Your task to perform on an android device: change the clock display to analog Image 0: 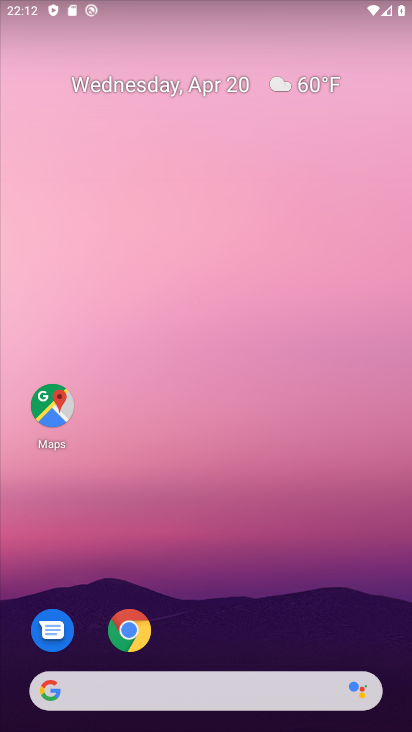
Step 0: drag from (283, 652) to (357, 84)
Your task to perform on an android device: change the clock display to analog Image 1: 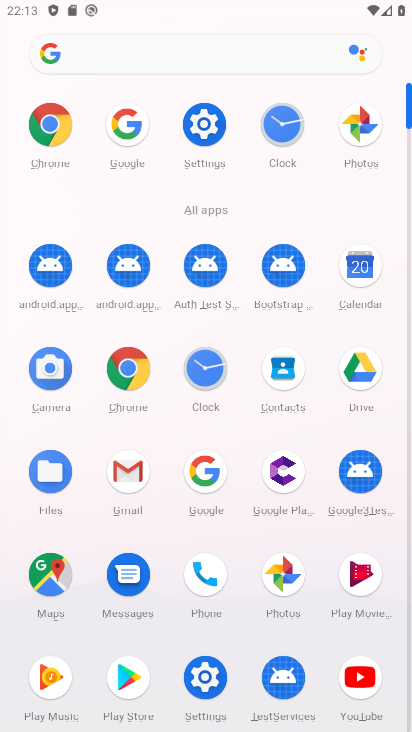
Step 1: click (207, 374)
Your task to perform on an android device: change the clock display to analog Image 2: 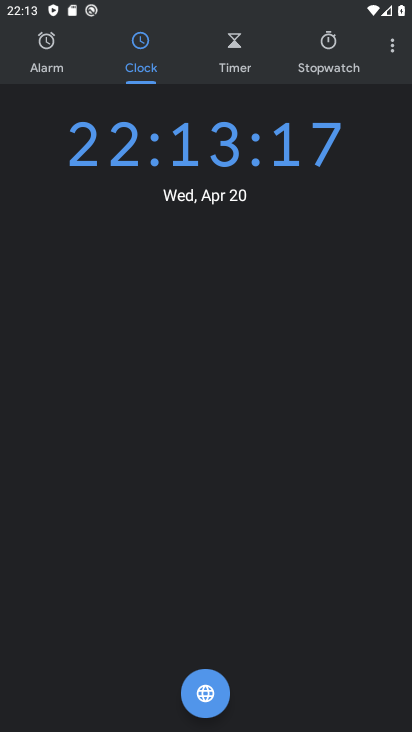
Step 2: click (398, 49)
Your task to perform on an android device: change the clock display to analog Image 3: 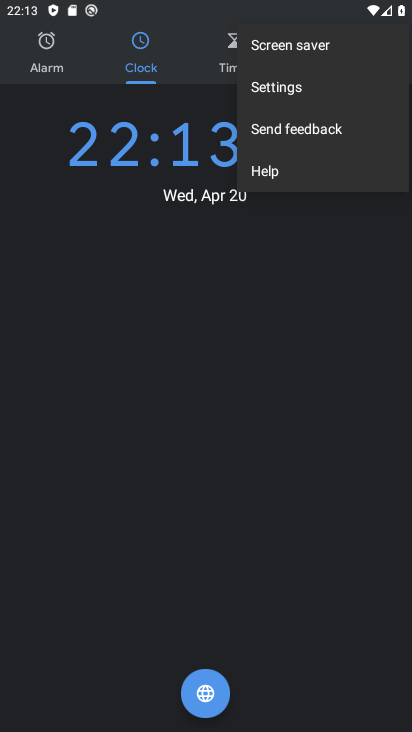
Step 3: click (320, 90)
Your task to perform on an android device: change the clock display to analog Image 4: 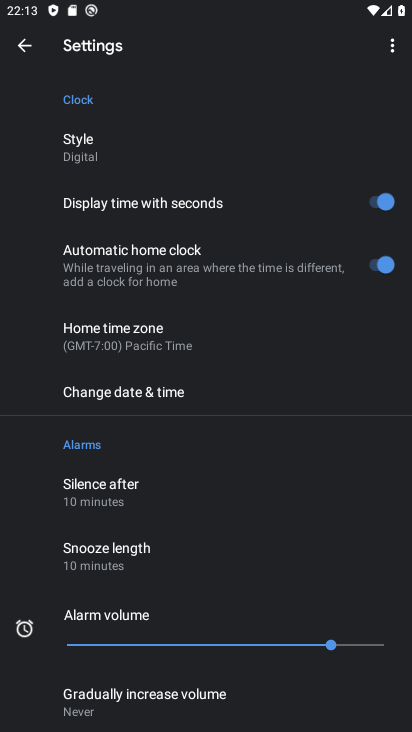
Step 4: click (109, 148)
Your task to perform on an android device: change the clock display to analog Image 5: 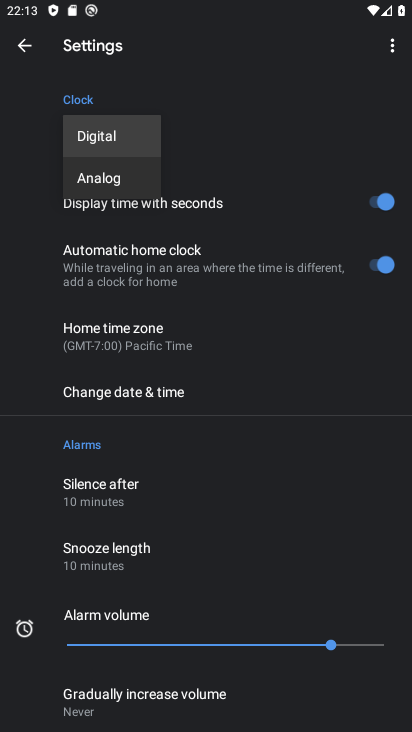
Step 5: click (117, 181)
Your task to perform on an android device: change the clock display to analog Image 6: 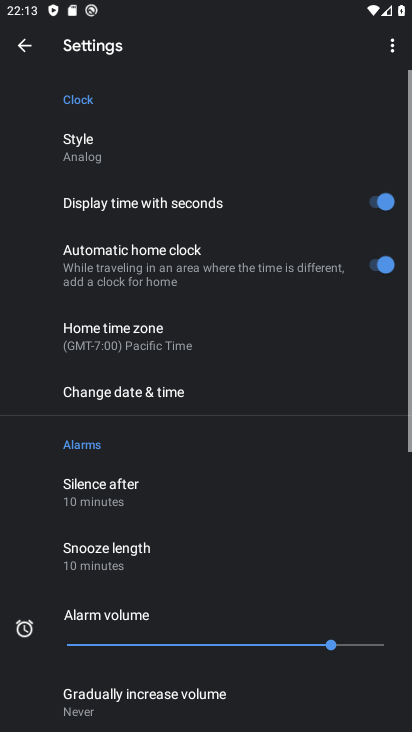
Step 6: task complete